Your task to perform on an android device: Open the web browser Image 0: 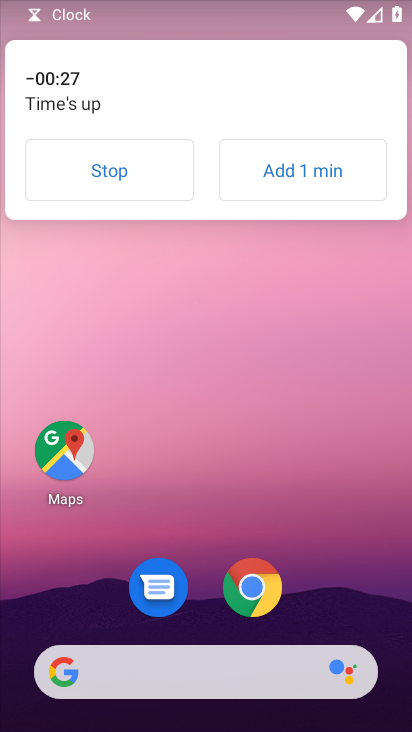
Step 0: click (115, 182)
Your task to perform on an android device: Open the web browser Image 1: 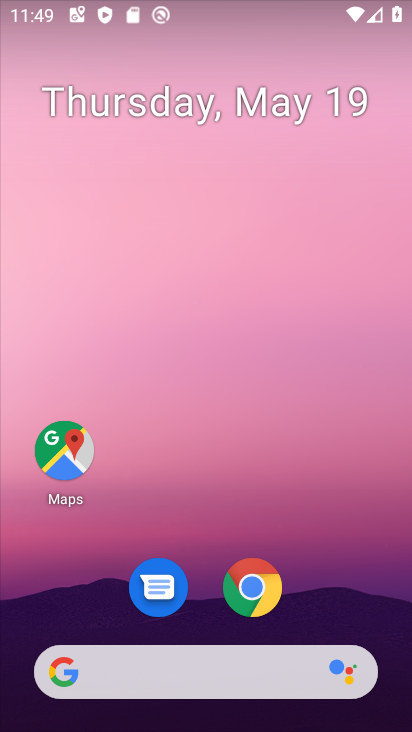
Step 1: click (254, 585)
Your task to perform on an android device: Open the web browser Image 2: 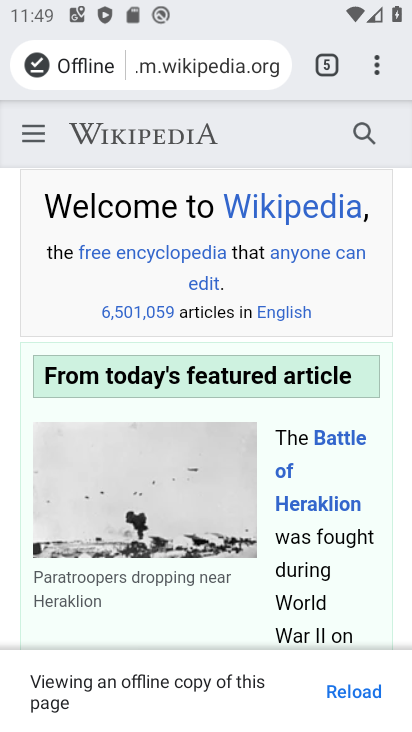
Step 2: task complete